Your task to perform on an android device: Search for rayovac triple a on amazon, select the first entry, add it to the cart, then select checkout. Image 0: 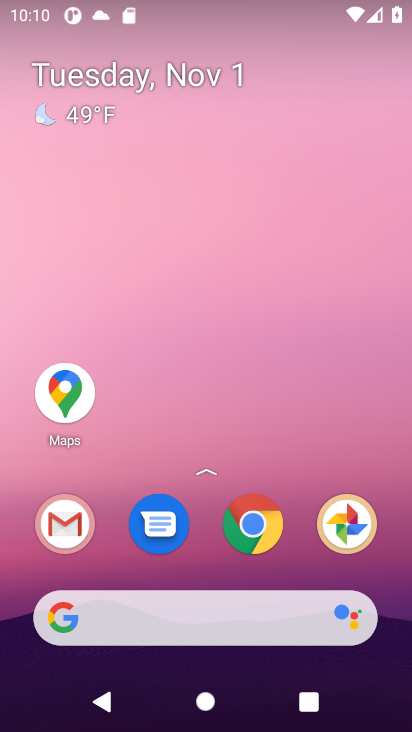
Step 0: press home button
Your task to perform on an android device: Search for rayovac triple a on amazon, select the first entry, add it to the cart, then select checkout. Image 1: 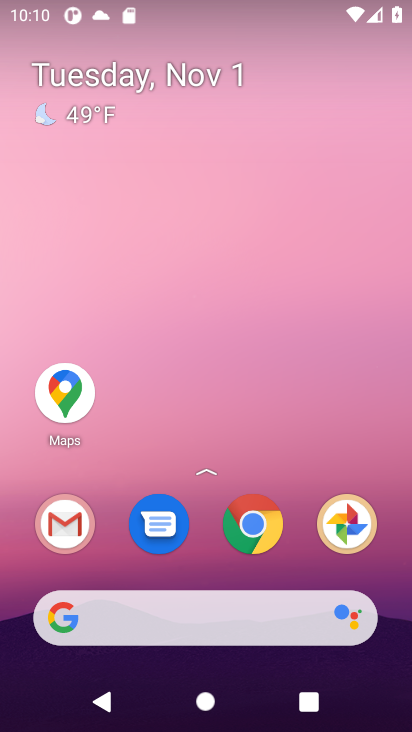
Step 1: click (92, 609)
Your task to perform on an android device: Search for rayovac triple a on amazon, select the first entry, add it to the cart, then select checkout. Image 2: 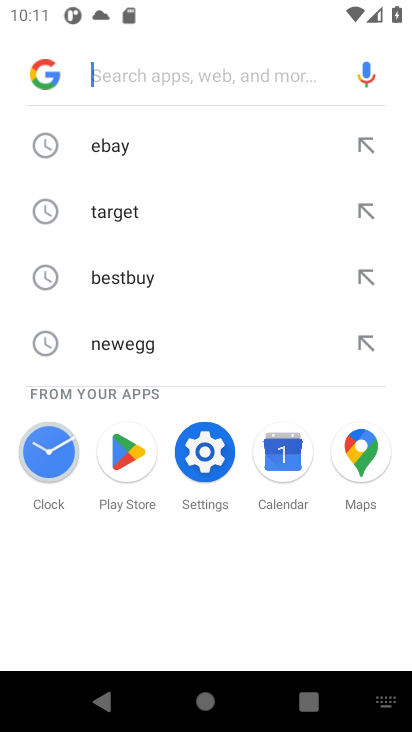
Step 2: type "amazon"
Your task to perform on an android device: Search for rayovac triple a on amazon, select the first entry, add it to the cart, then select checkout. Image 3: 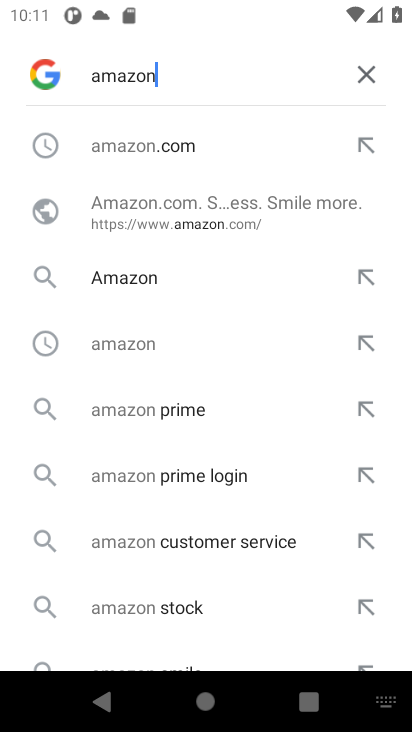
Step 3: press enter
Your task to perform on an android device: Search for rayovac triple a on amazon, select the first entry, add it to the cart, then select checkout. Image 4: 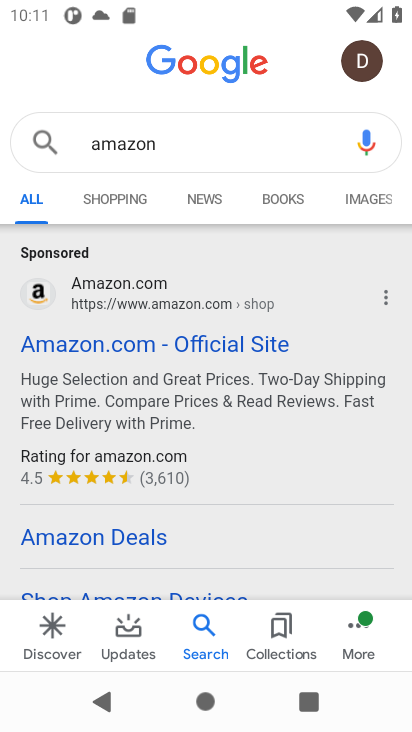
Step 4: drag from (277, 509) to (274, 317)
Your task to perform on an android device: Search for rayovac triple a on amazon, select the first entry, add it to the cart, then select checkout. Image 5: 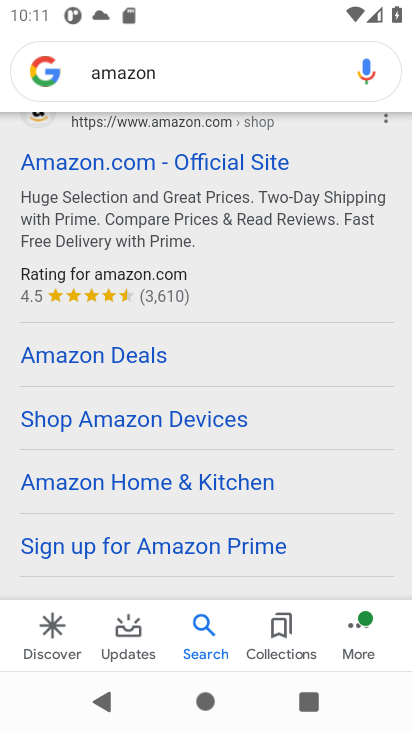
Step 5: click (80, 167)
Your task to perform on an android device: Search for rayovac triple a on amazon, select the first entry, add it to the cart, then select checkout. Image 6: 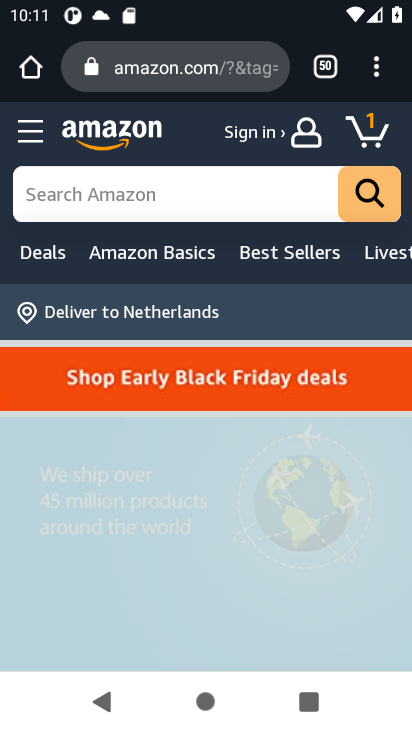
Step 6: click (72, 190)
Your task to perform on an android device: Search for rayovac triple a on amazon, select the first entry, add it to the cart, then select checkout. Image 7: 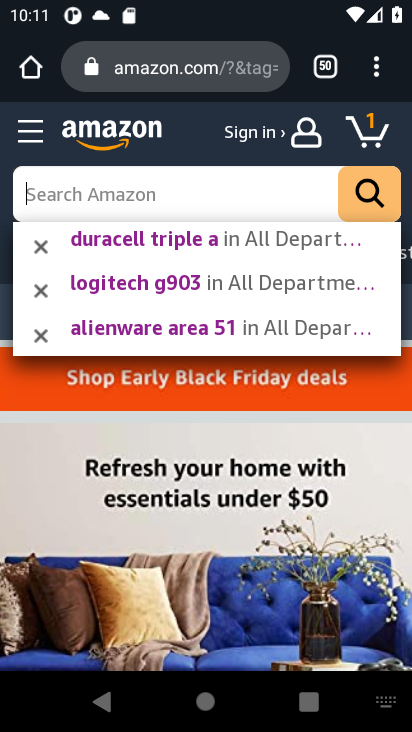
Step 7: type "rayovac triple a"
Your task to perform on an android device: Search for rayovac triple a on amazon, select the first entry, add it to the cart, then select checkout. Image 8: 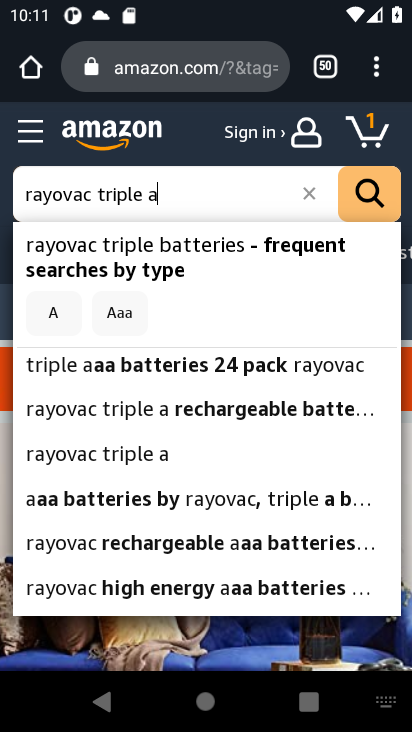
Step 8: press enter
Your task to perform on an android device: Search for rayovac triple a on amazon, select the first entry, add it to the cart, then select checkout. Image 9: 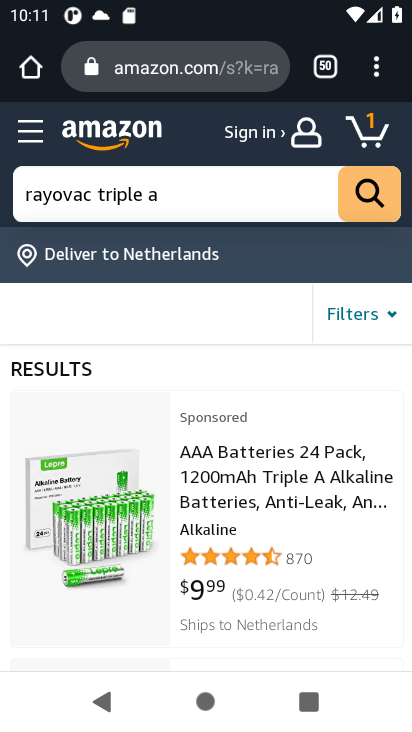
Step 9: drag from (297, 570) to (286, 438)
Your task to perform on an android device: Search for rayovac triple a on amazon, select the first entry, add it to the cart, then select checkout. Image 10: 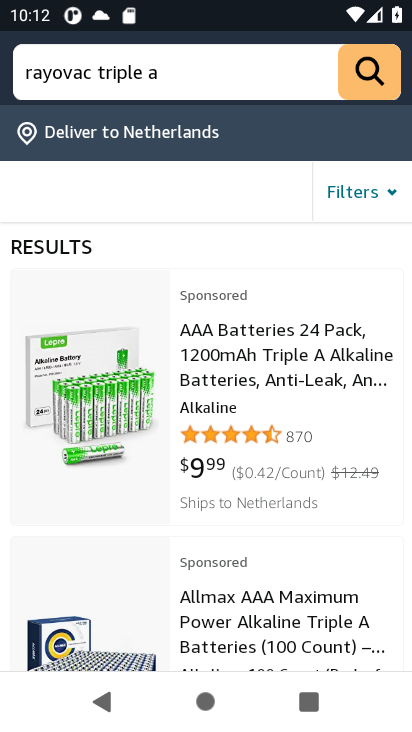
Step 10: drag from (266, 551) to (270, 411)
Your task to perform on an android device: Search for rayovac triple a on amazon, select the first entry, add it to the cart, then select checkout. Image 11: 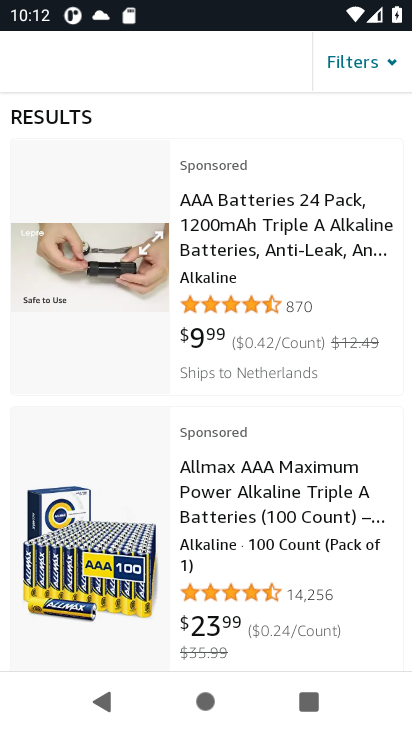
Step 11: drag from (277, 523) to (283, 259)
Your task to perform on an android device: Search for rayovac triple a on amazon, select the first entry, add it to the cart, then select checkout. Image 12: 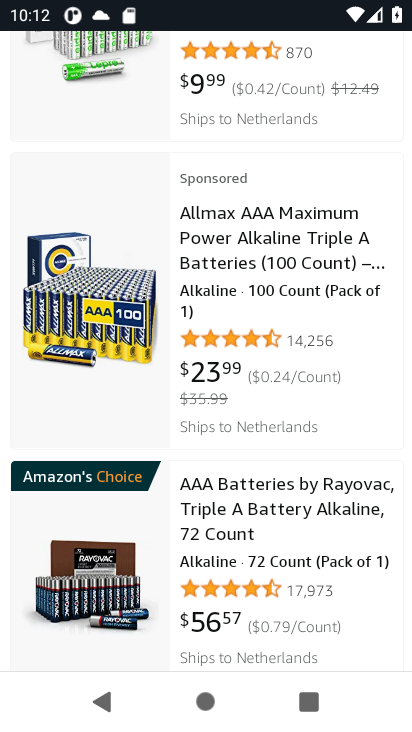
Step 12: drag from (293, 198) to (321, 613)
Your task to perform on an android device: Search for rayovac triple a on amazon, select the first entry, add it to the cart, then select checkout. Image 13: 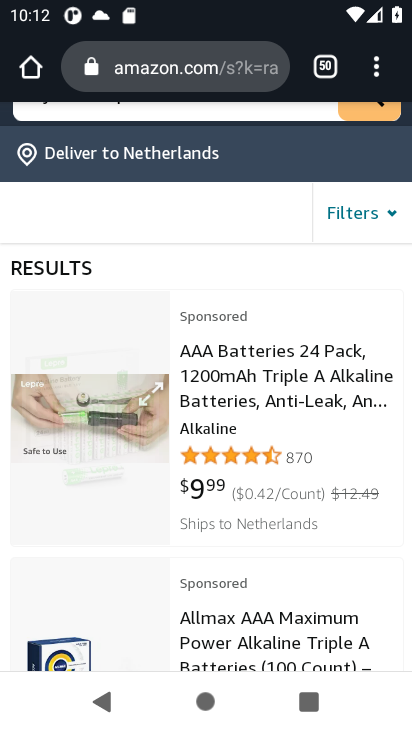
Step 13: drag from (289, 556) to (281, 243)
Your task to perform on an android device: Search for rayovac triple a on amazon, select the first entry, add it to the cart, then select checkout. Image 14: 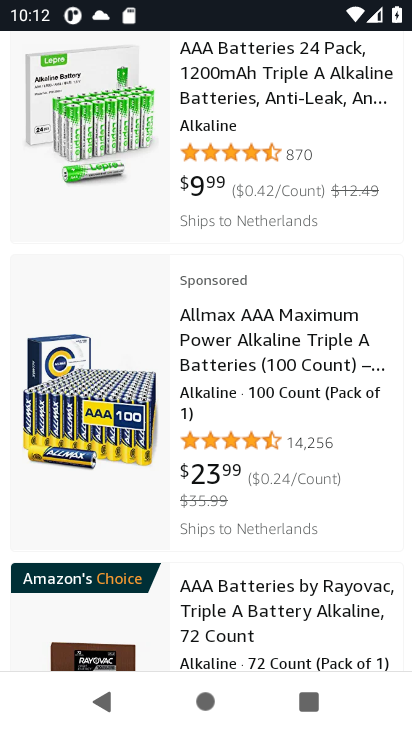
Step 14: drag from (271, 133) to (291, 527)
Your task to perform on an android device: Search for rayovac triple a on amazon, select the first entry, add it to the cart, then select checkout. Image 15: 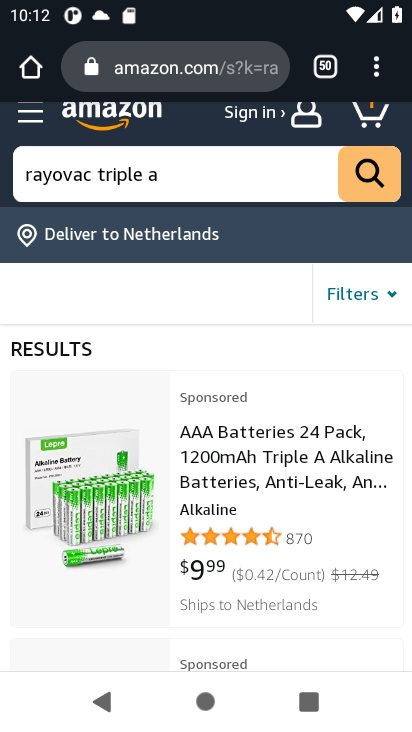
Step 15: drag from (280, 519) to (255, 248)
Your task to perform on an android device: Search for rayovac triple a on amazon, select the first entry, add it to the cart, then select checkout. Image 16: 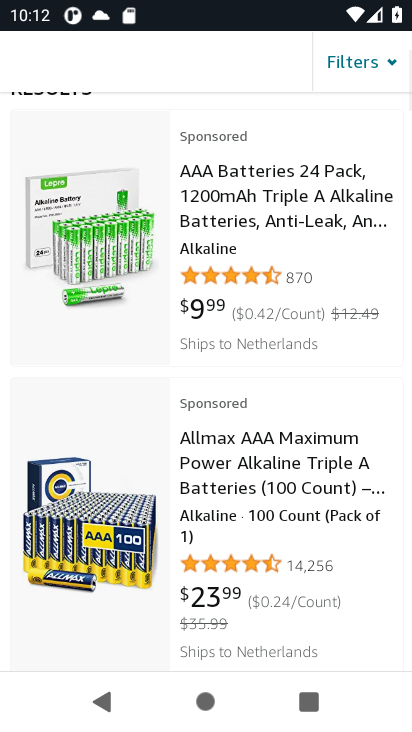
Step 16: drag from (264, 539) to (264, 302)
Your task to perform on an android device: Search for rayovac triple a on amazon, select the first entry, add it to the cart, then select checkout. Image 17: 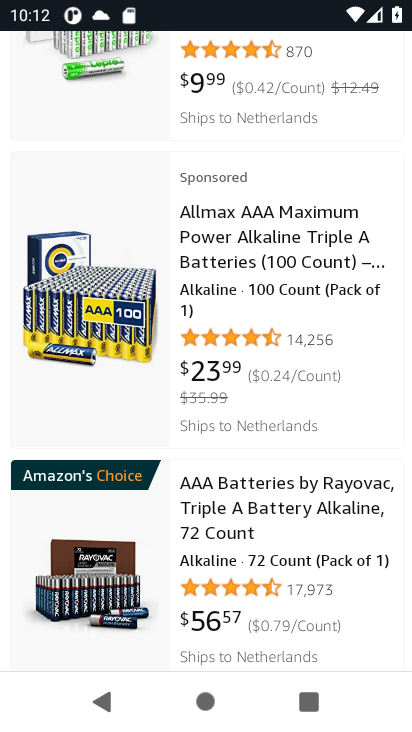
Step 17: click (307, 490)
Your task to perform on an android device: Search for rayovac triple a on amazon, select the first entry, add it to the cart, then select checkout. Image 18: 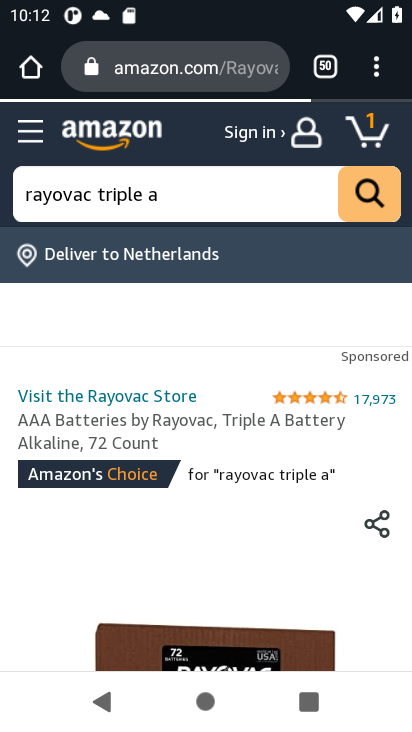
Step 18: drag from (222, 587) to (241, 320)
Your task to perform on an android device: Search for rayovac triple a on amazon, select the first entry, add it to the cart, then select checkout. Image 19: 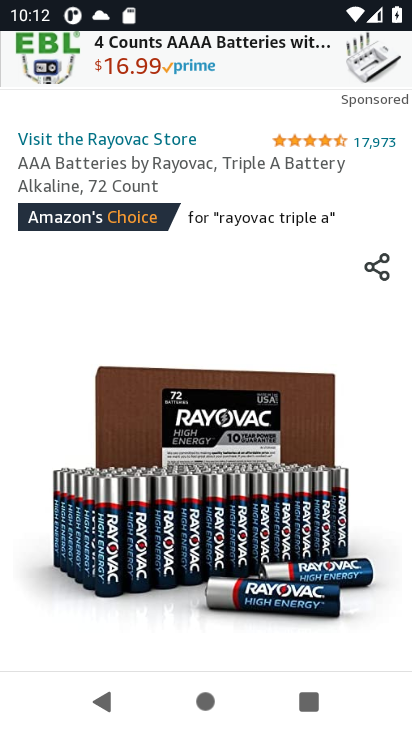
Step 19: drag from (193, 566) to (194, 227)
Your task to perform on an android device: Search for rayovac triple a on amazon, select the first entry, add it to the cart, then select checkout. Image 20: 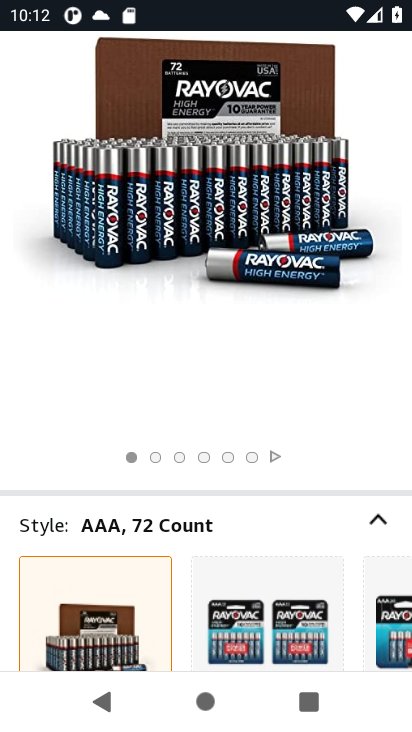
Step 20: drag from (191, 587) to (192, 269)
Your task to perform on an android device: Search for rayovac triple a on amazon, select the first entry, add it to the cart, then select checkout. Image 21: 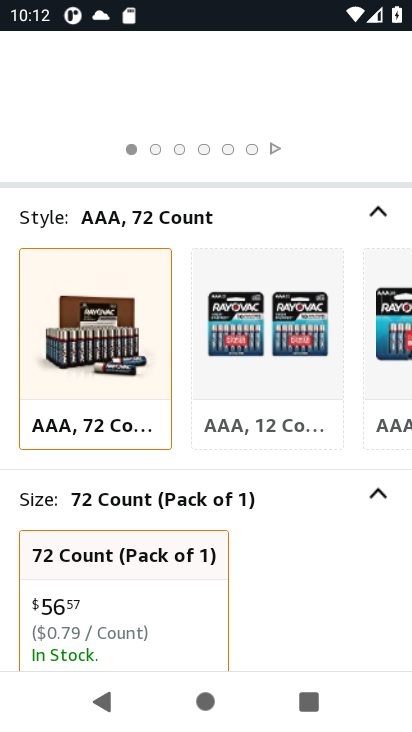
Step 21: drag from (180, 579) to (178, 284)
Your task to perform on an android device: Search for rayovac triple a on amazon, select the first entry, add it to the cart, then select checkout. Image 22: 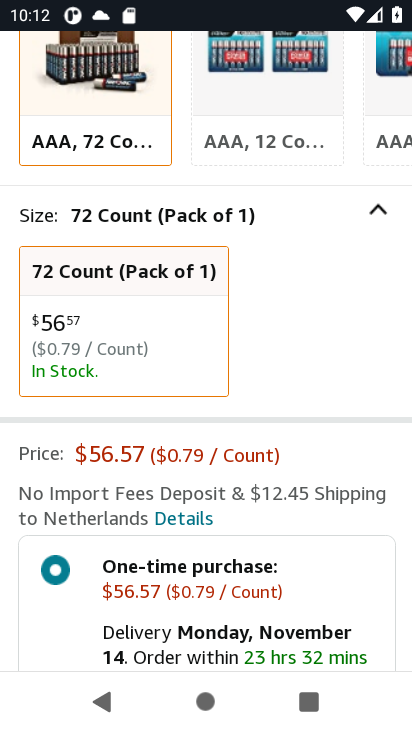
Step 22: drag from (229, 599) to (227, 318)
Your task to perform on an android device: Search for rayovac triple a on amazon, select the first entry, add it to the cart, then select checkout. Image 23: 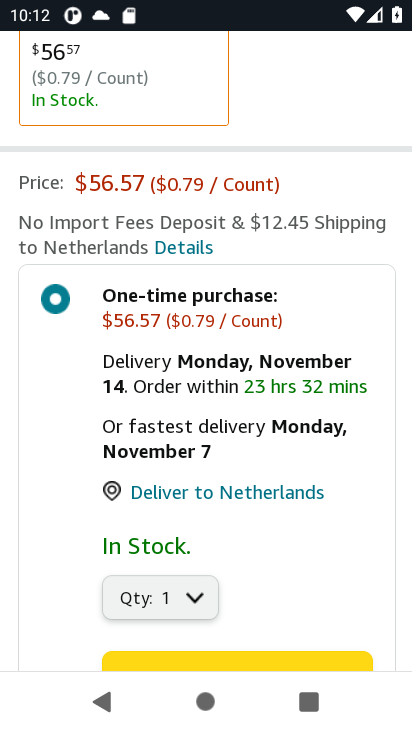
Step 23: drag from (235, 592) to (239, 374)
Your task to perform on an android device: Search for rayovac triple a on amazon, select the first entry, add it to the cart, then select checkout. Image 24: 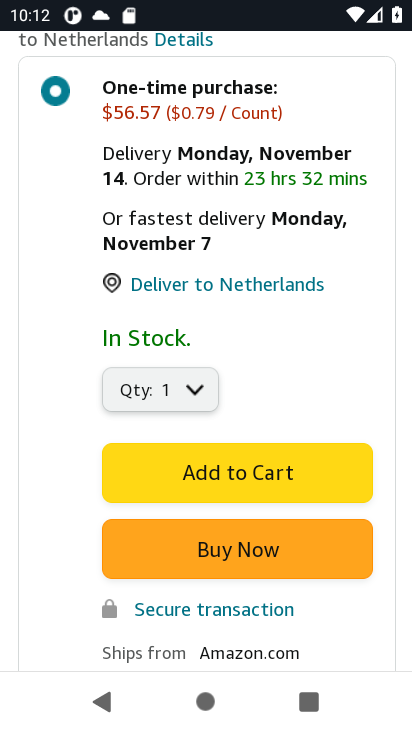
Step 24: click (268, 479)
Your task to perform on an android device: Search for rayovac triple a on amazon, select the first entry, add it to the cart, then select checkout. Image 25: 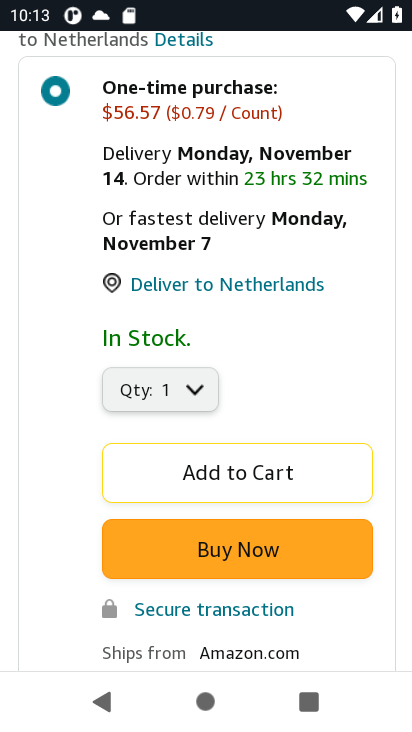
Step 25: click (222, 475)
Your task to perform on an android device: Search for rayovac triple a on amazon, select the first entry, add it to the cart, then select checkout. Image 26: 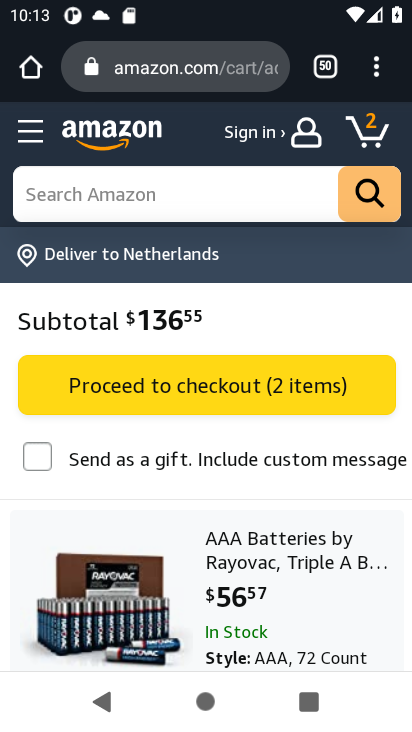
Step 26: click (203, 391)
Your task to perform on an android device: Search for rayovac triple a on amazon, select the first entry, add it to the cart, then select checkout. Image 27: 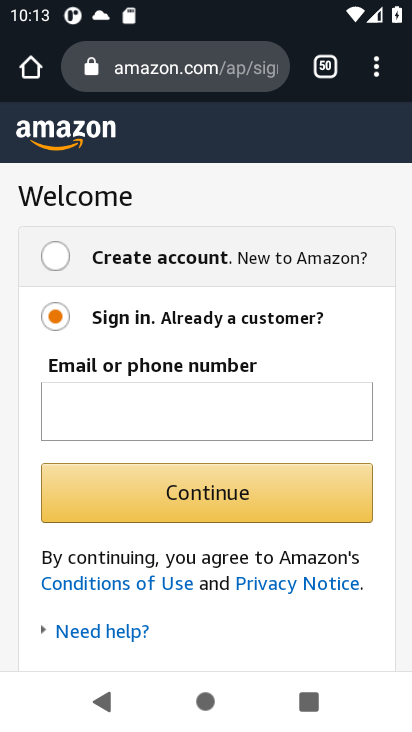
Step 27: task complete